Your task to perform on an android device: change the clock display to show seconds Image 0: 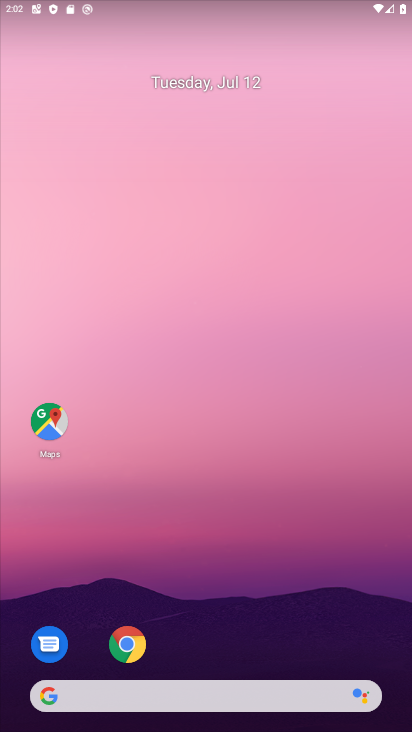
Step 0: drag from (209, 649) to (217, 220)
Your task to perform on an android device: change the clock display to show seconds Image 1: 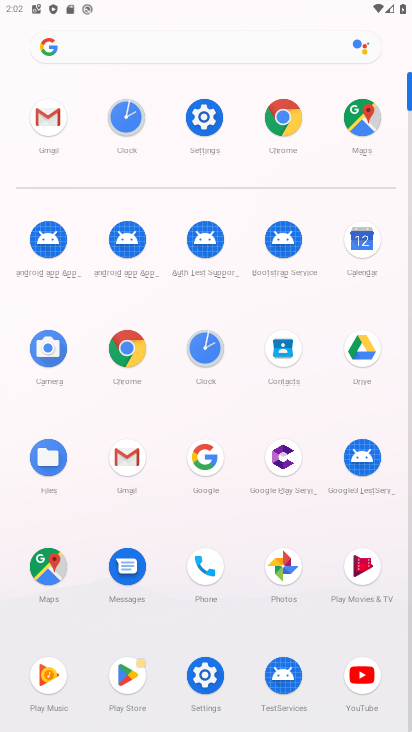
Step 1: click (216, 355)
Your task to perform on an android device: change the clock display to show seconds Image 2: 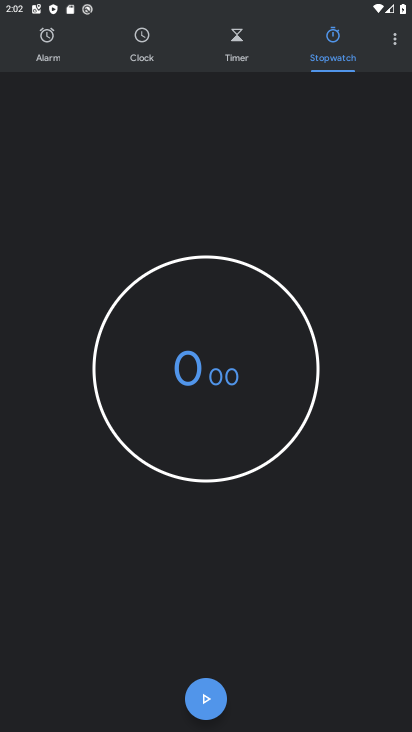
Step 2: click (389, 37)
Your task to perform on an android device: change the clock display to show seconds Image 3: 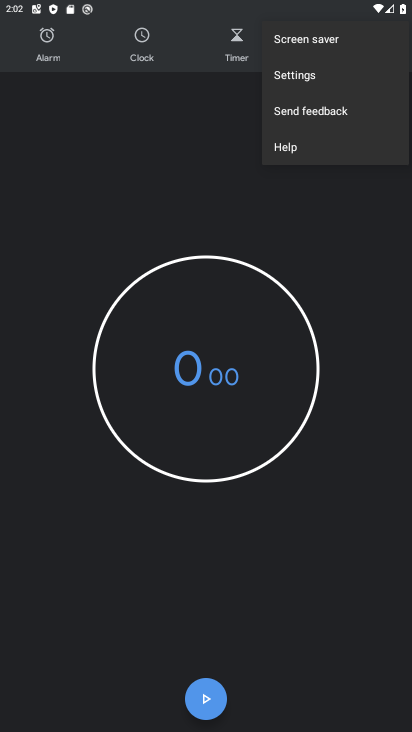
Step 3: click (312, 86)
Your task to perform on an android device: change the clock display to show seconds Image 4: 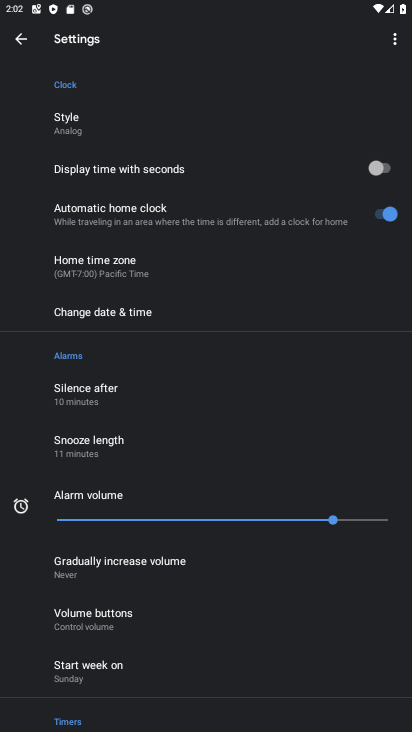
Step 4: click (173, 170)
Your task to perform on an android device: change the clock display to show seconds Image 5: 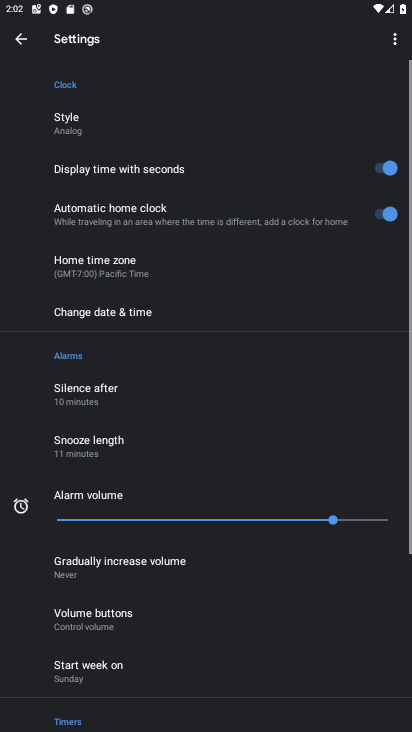
Step 5: task complete